Your task to perform on an android device: change your default location settings in chrome Image 0: 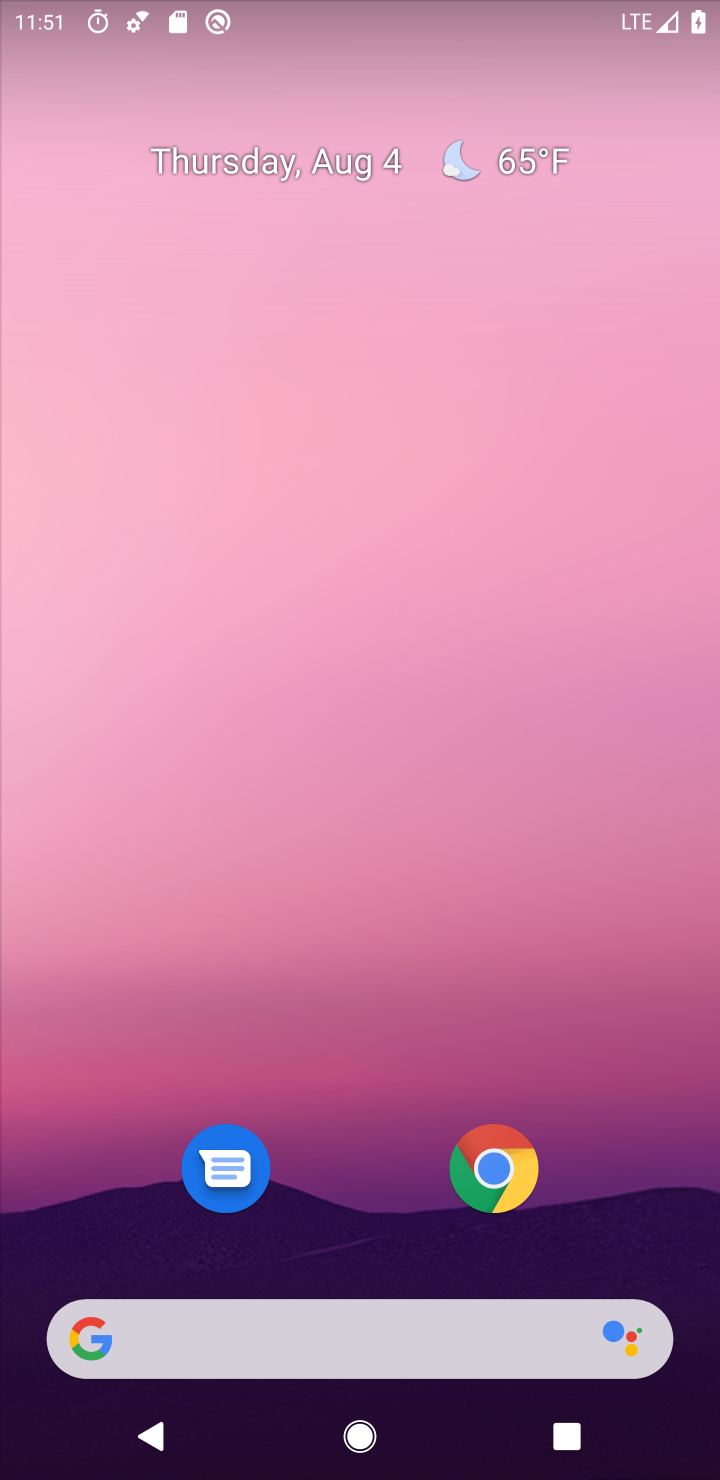
Step 0: click (487, 1160)
Your task to perform on an android device: change your default location settings in chrome Image 1: 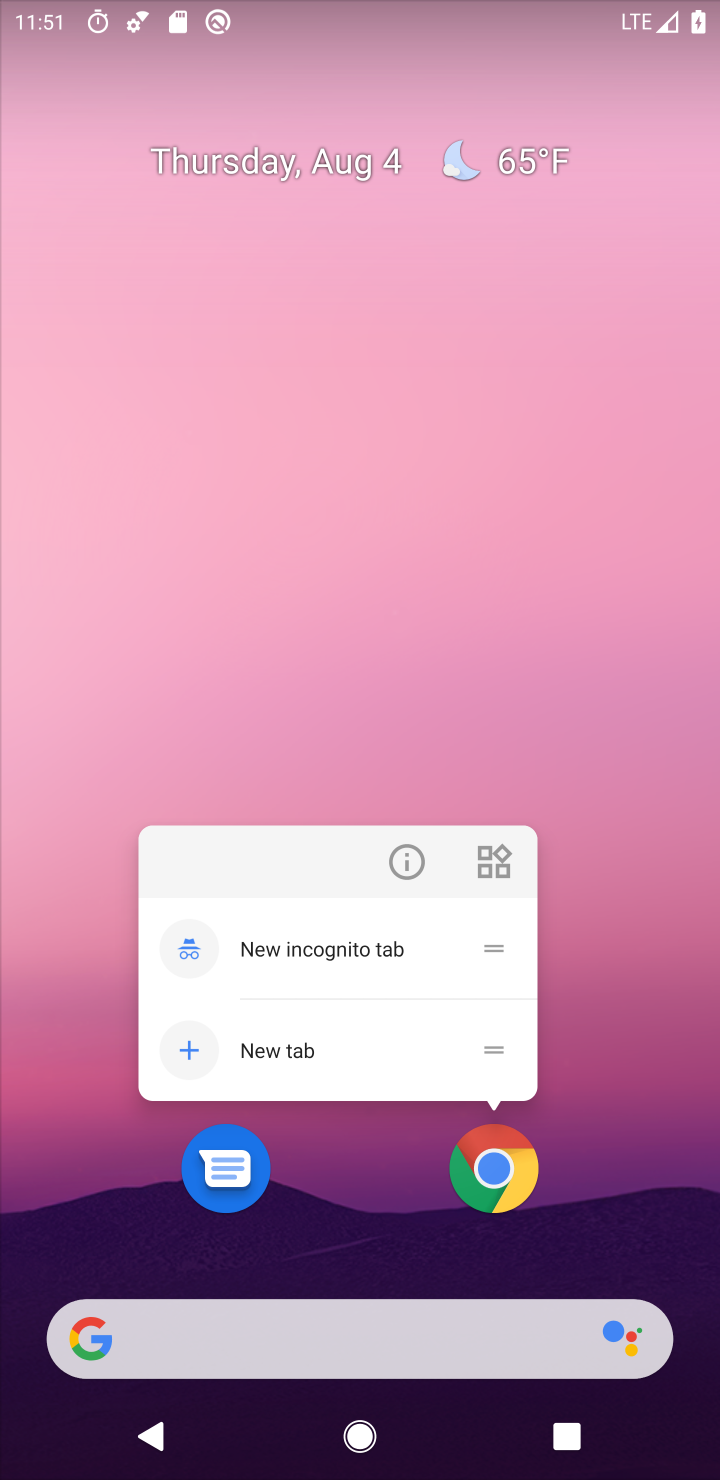
Step 1: click (465, 1170)
Your task to perform on an android device: change your default location settings in chrome Image 2: 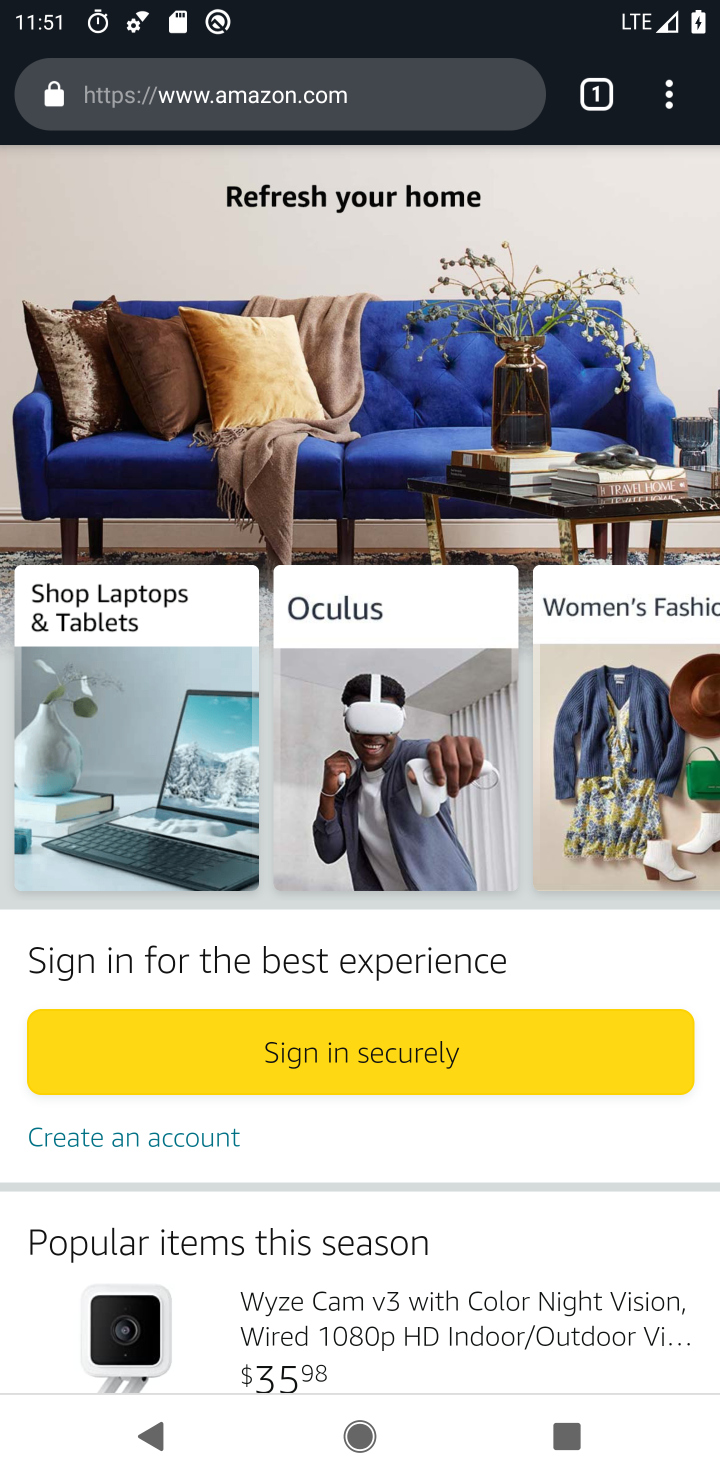
Step 2: click (664, 84)
Your task to perform on an android device: change your default location settings in chrome Image 3: 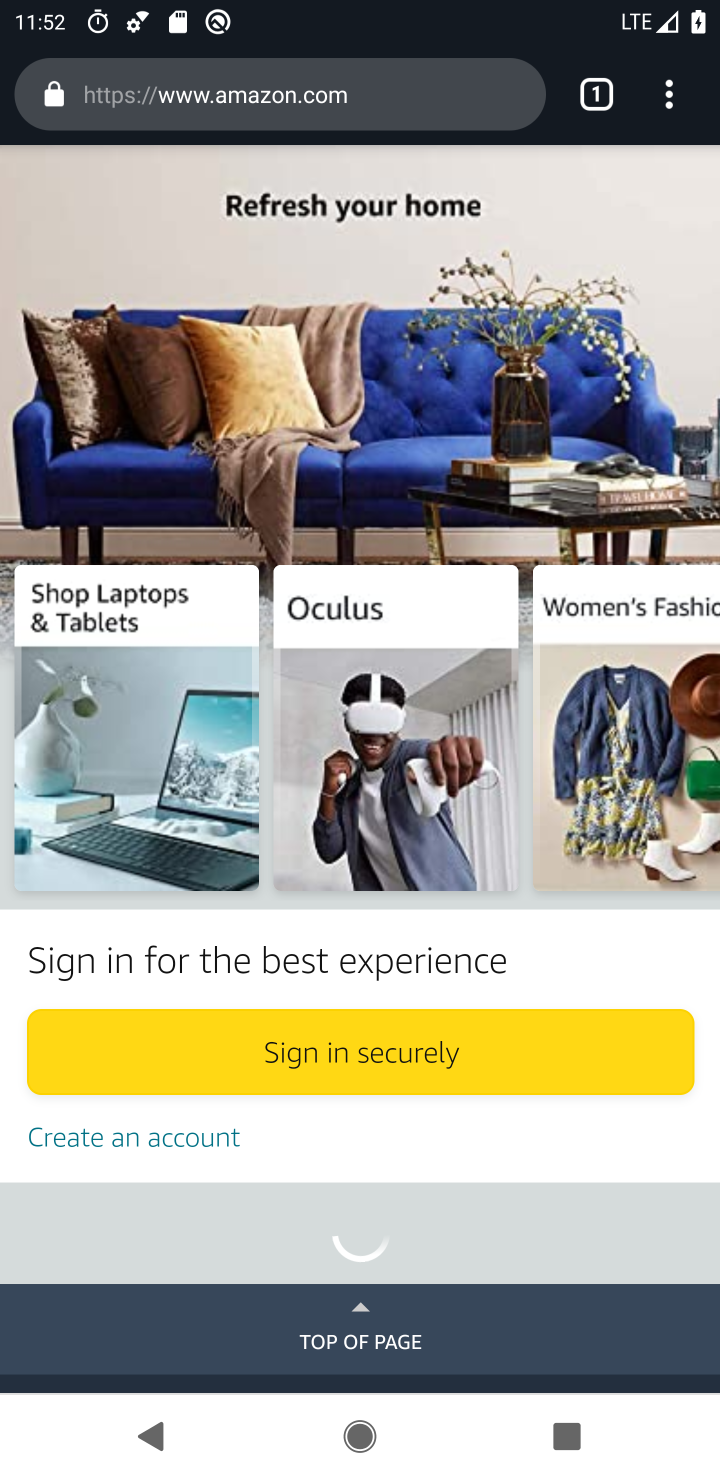
Step 3: click (672, 101)
Your task to perform on an android device: change your default location settings in chrome Image 4: 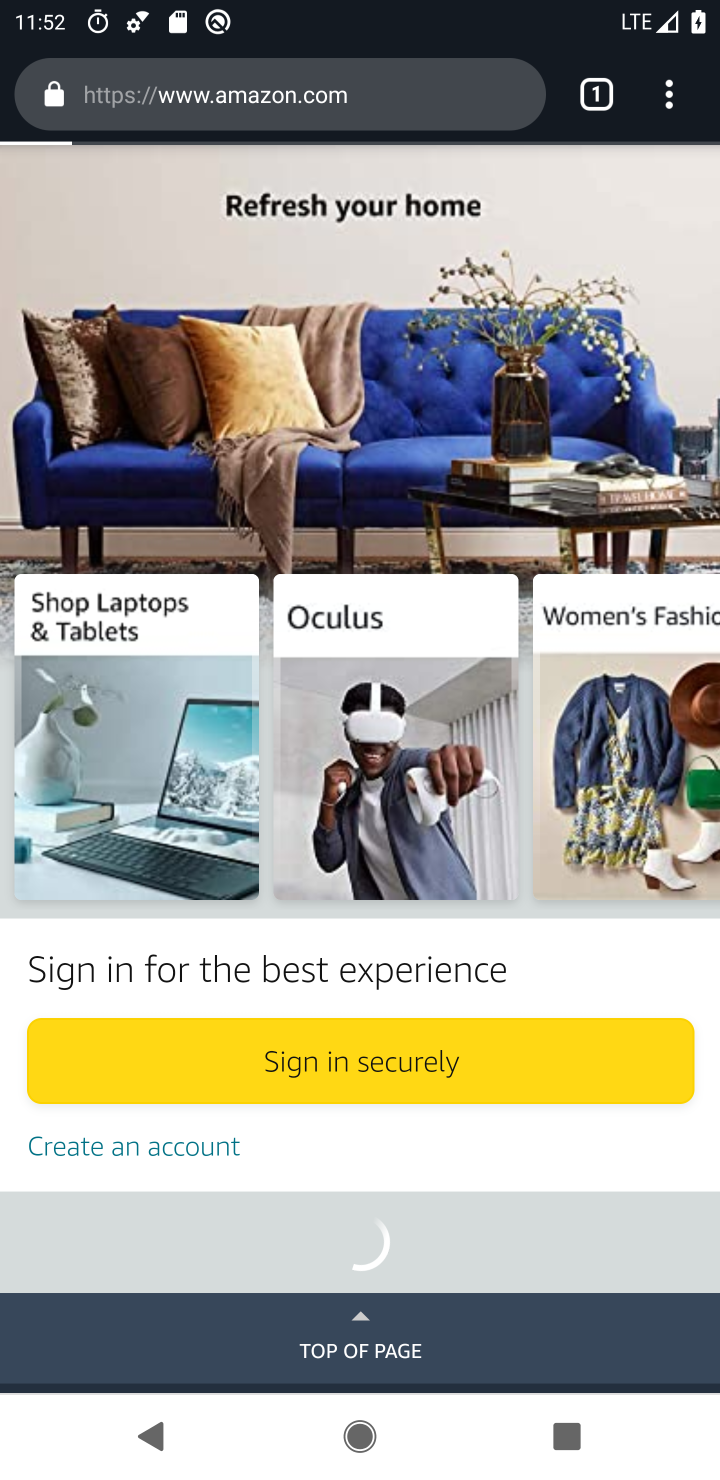
Step 4: click (654, 88)
Your task to perform on an android device: change your default location settings in chrome Image 5: 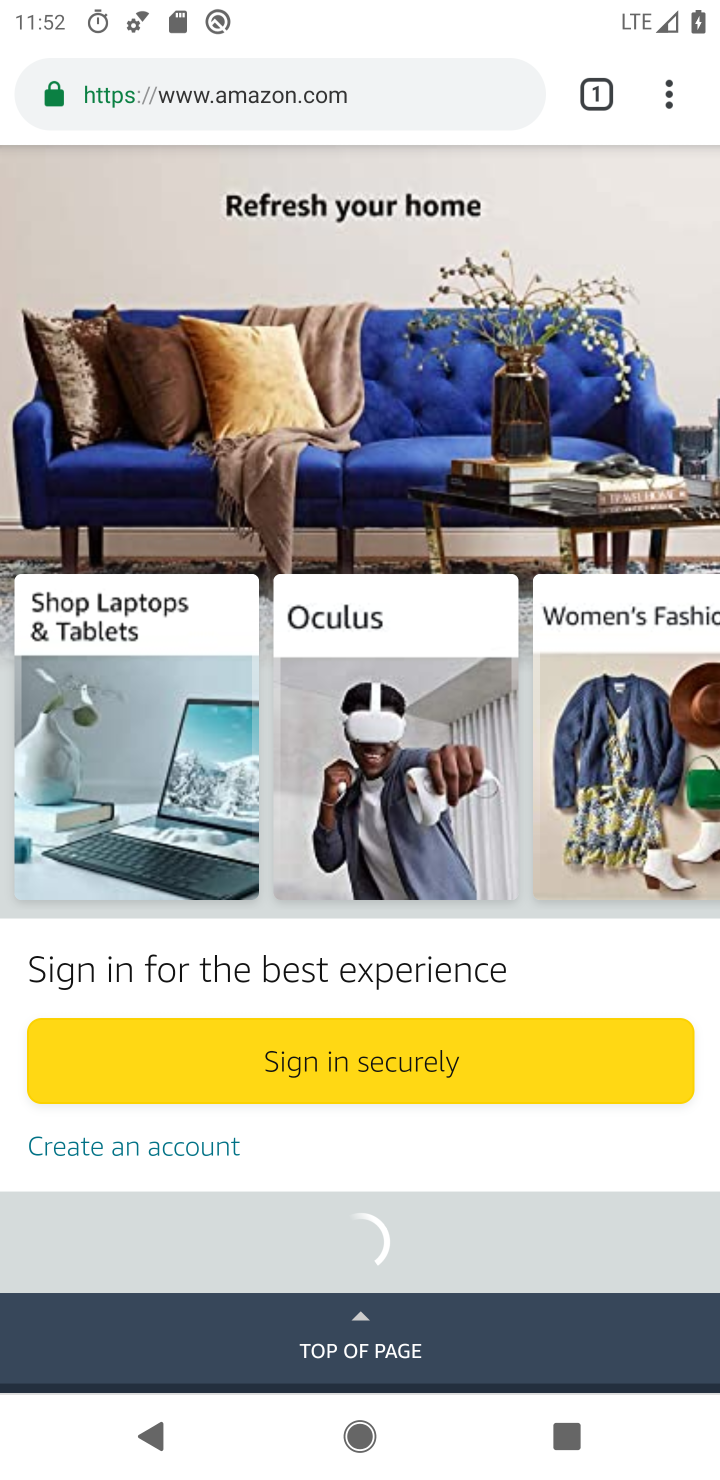
Step 5: click (668, 104)
Your task to perform on an android device: change your default location settings in chrome Image 6: 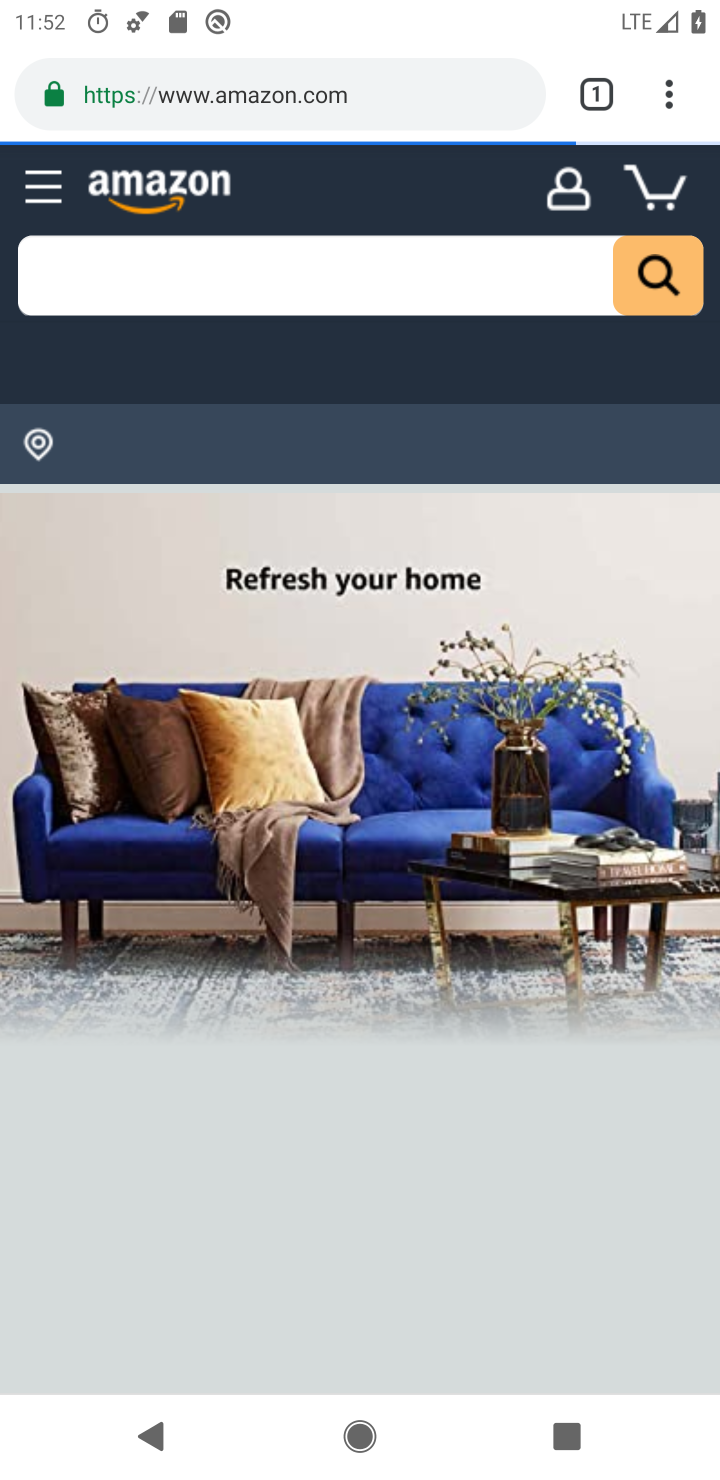
Step 6: click (648, 140)
Your task to perform on an android device: change your default location settings in chrome Image 7: 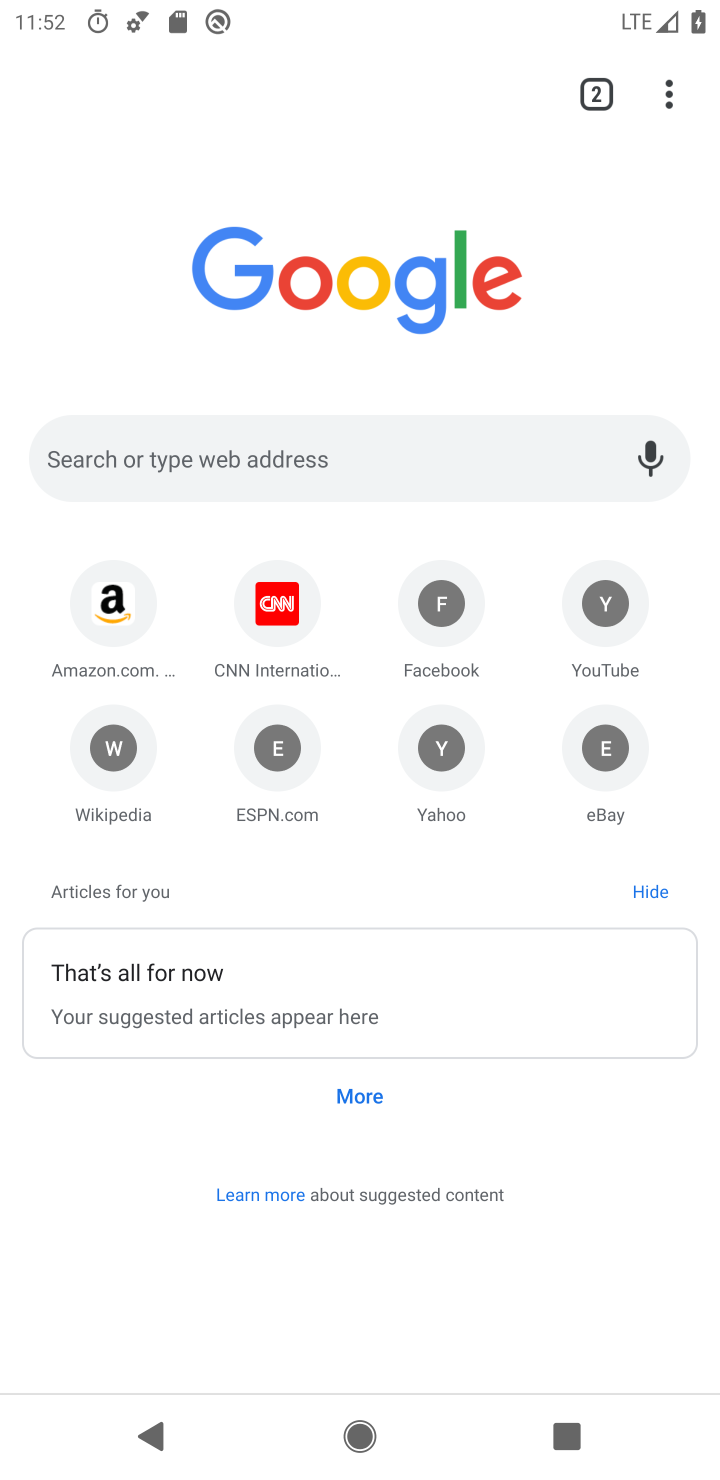
Step 7: click (665, 116)
Your task to perform on an android device: change your default location settings in chrome Image 8: 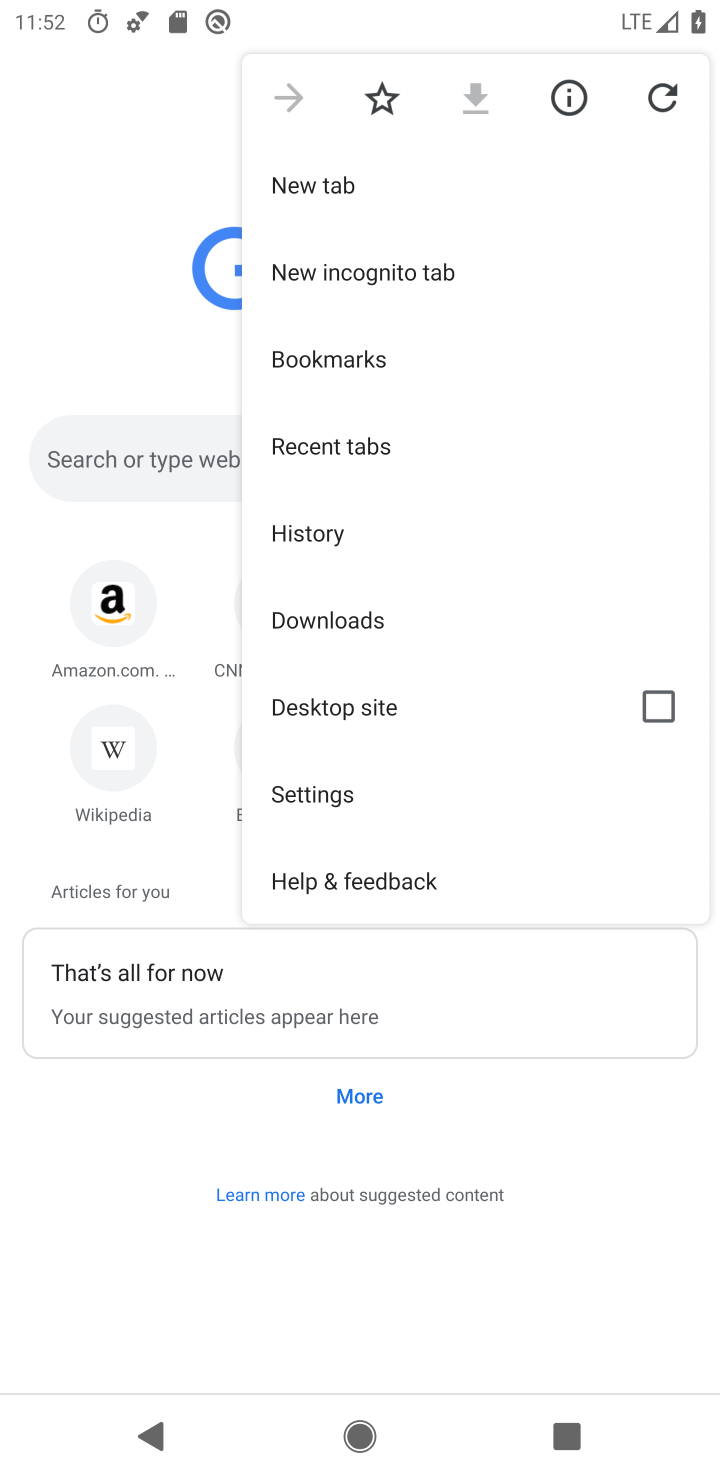
Step 8: click (338, 793)
Your task to perform on an android device: change your default location settings in chrome Image 9: 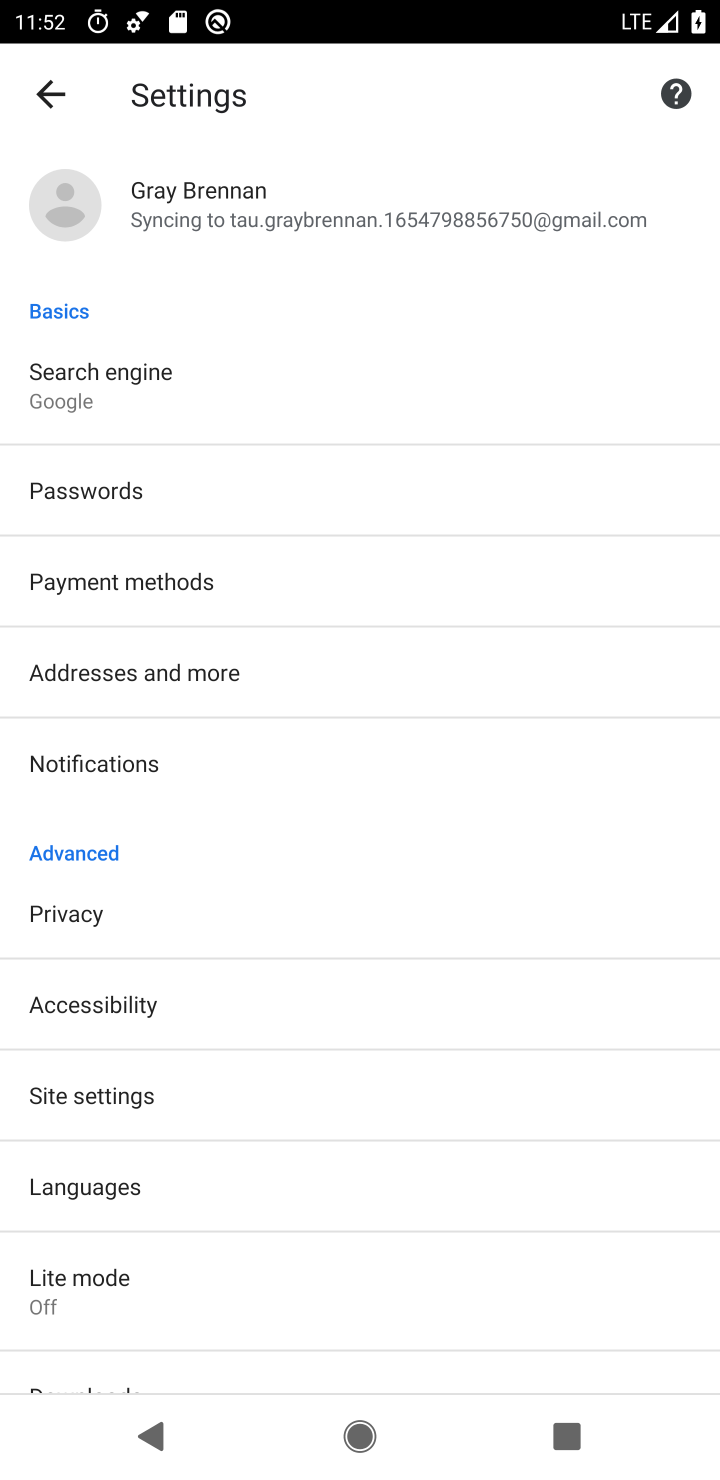
Step 9: click (117, 1087)
Your task to perform on an android device: change your default location settings in chrome Image 10: 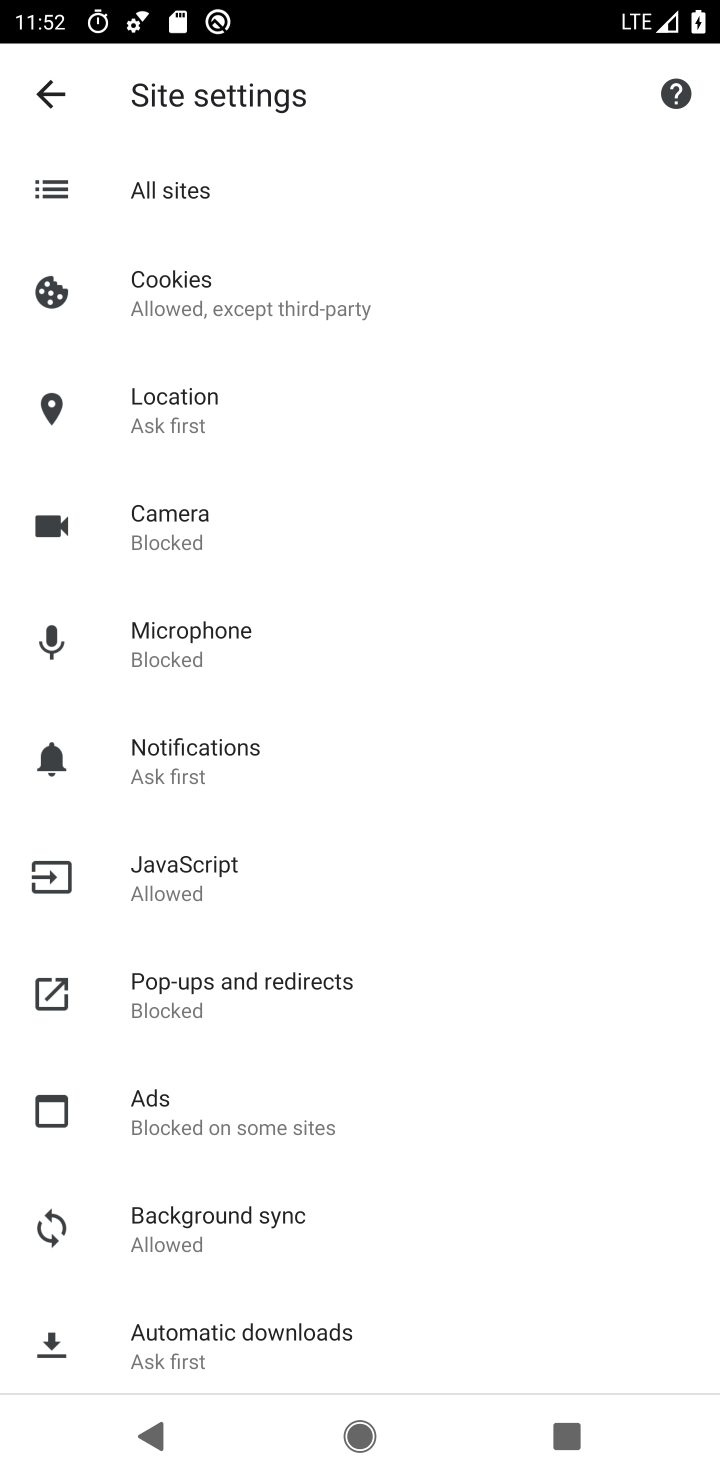
Step 10: click (181, 404)
Your task to perform on an android device: change your default location settings in chrome Image 11: 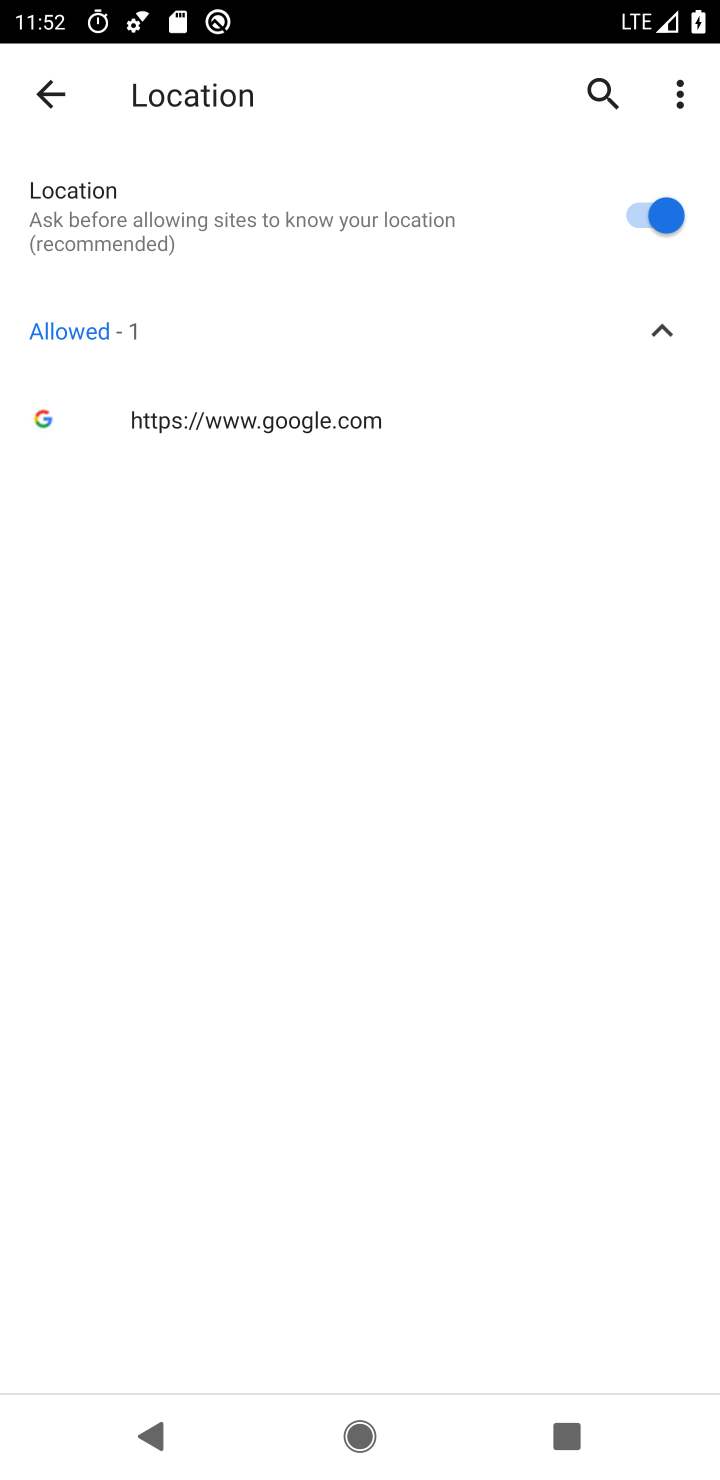
Step 11: click (604, 213)
Your task to perform on an android device: change your default location settings in chrome Image 12: 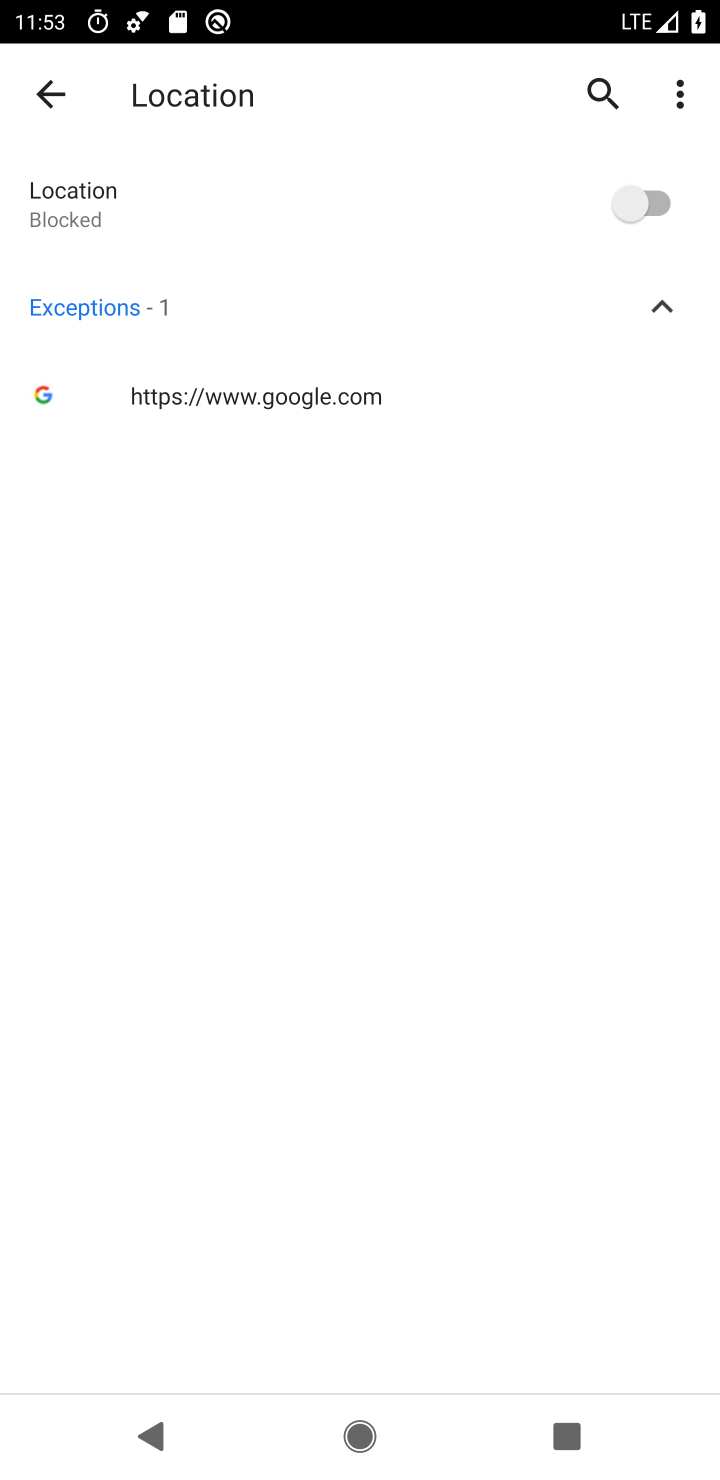
Step 12: task complete